Your task to perform on an android device: Open wifi settings Image 0: 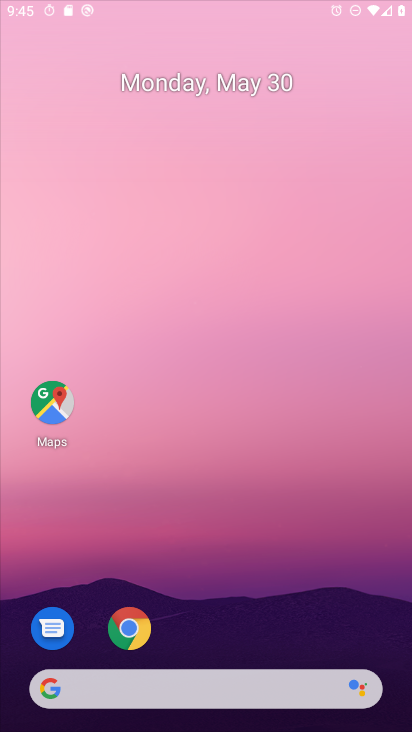
Step 0: drag from (283, 633) to (241, 36)
Your task to perform on an android device: Open wifi settings Image 1: 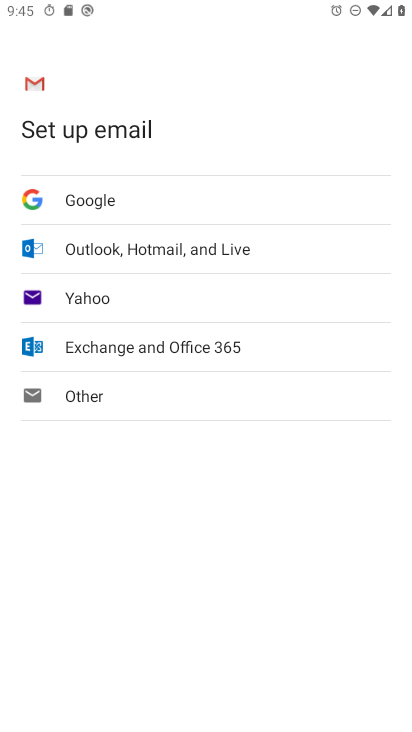
Step 1: press home button
Your task to perform on an android device: Open wifi settings Image 2: 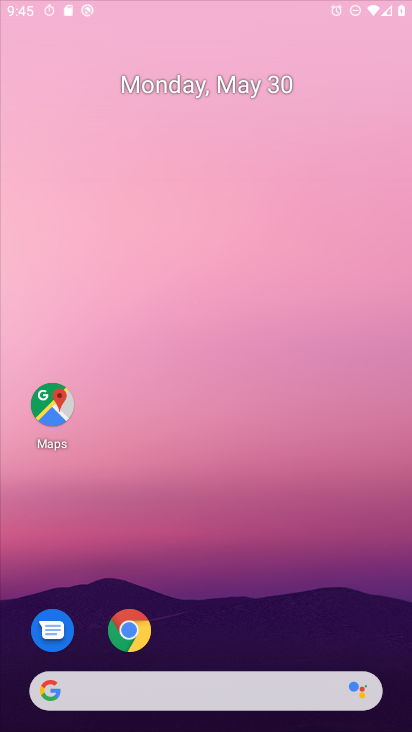
Step 2: drag from (313, 644) to (254, 27)
Your task to perform on an android device: Open wifi settings Image 3: 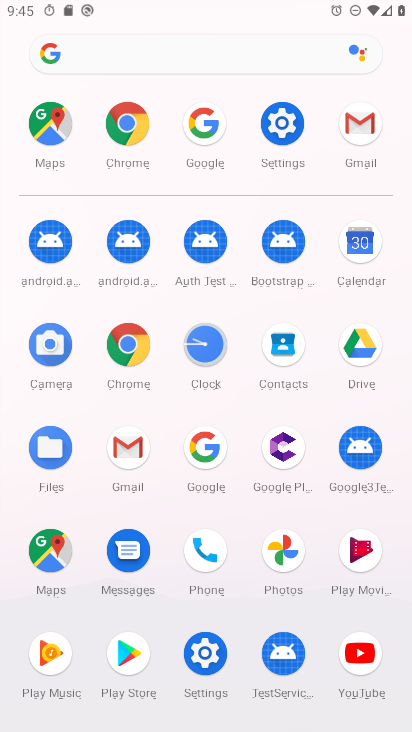
Step 3: click (284, 146)
Your task to perform on an android device: Open wifi settings Image 4: 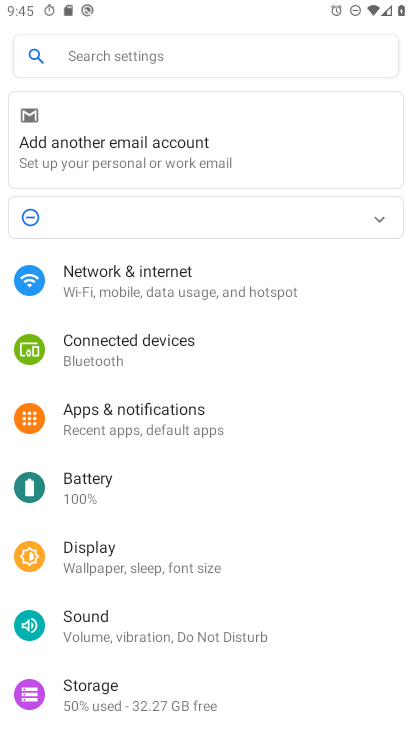
Step 4: click (171, 289)
Your task to perform on an android device: Open wifi settings Image 5: 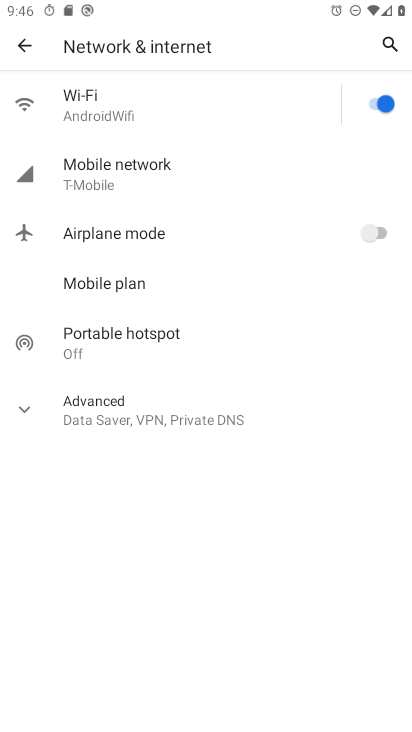
Step 5: click (173, 124)
Your task to perform on an android device: Open wifi settings Image 6: 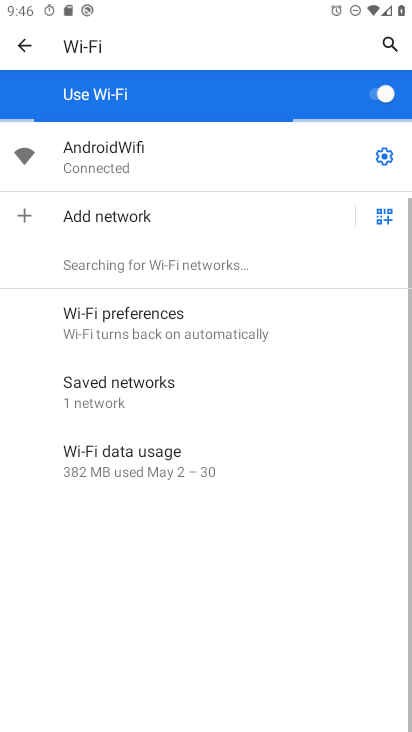
Step 6: task complete